Your task to perform on an android device: Go to Google Image 0: 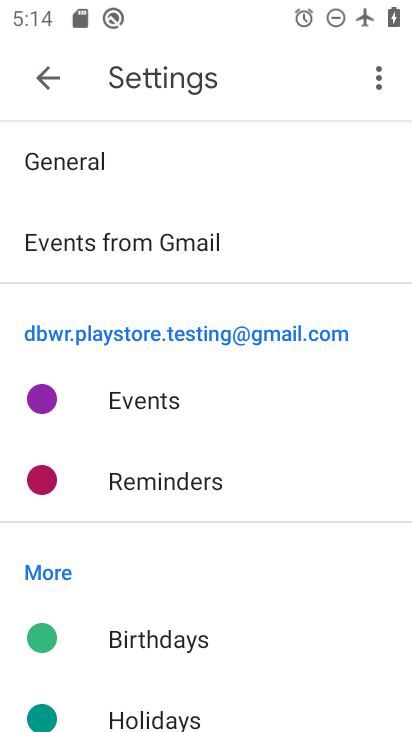
Step 0: press home button
Your task to perform on an android device: Go to Google Image 1: 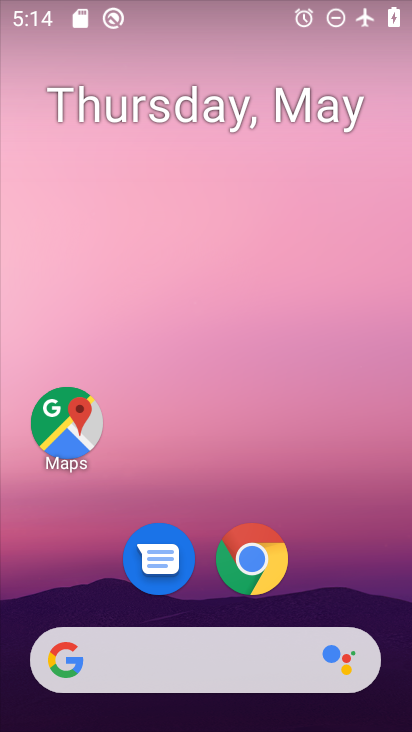
Step 1: drag from (343, 518) to (80, 19)
Your task to perform on an android device: Go to Google Image 2: 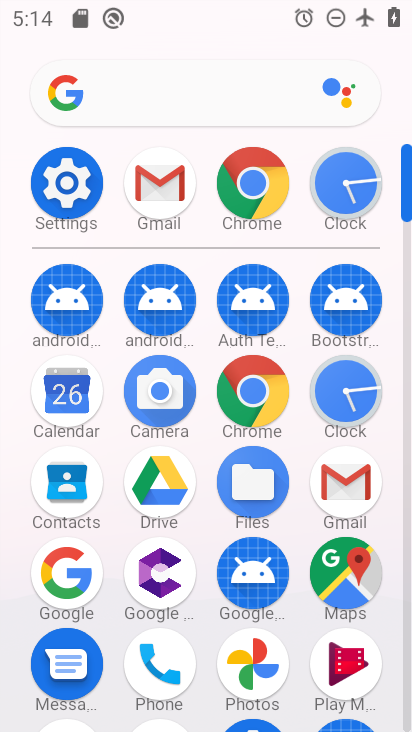
Step 2: click (80, 582)
Your task to perform on an android device: Go to Google Image 3: 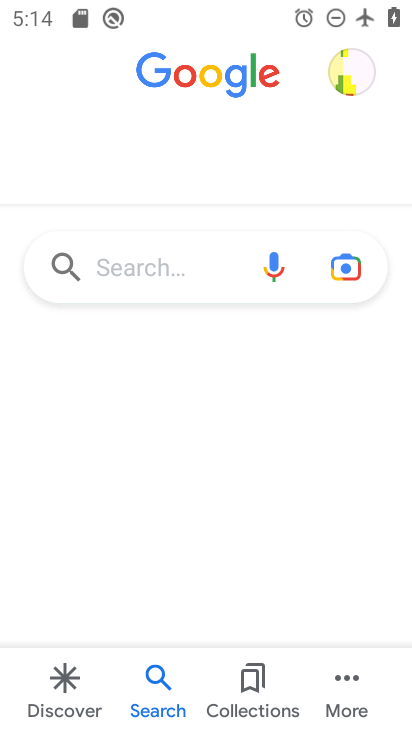
Step 3: task complete